Your task to perform on an android device: stop showing notifications on the lock screen Image 0: 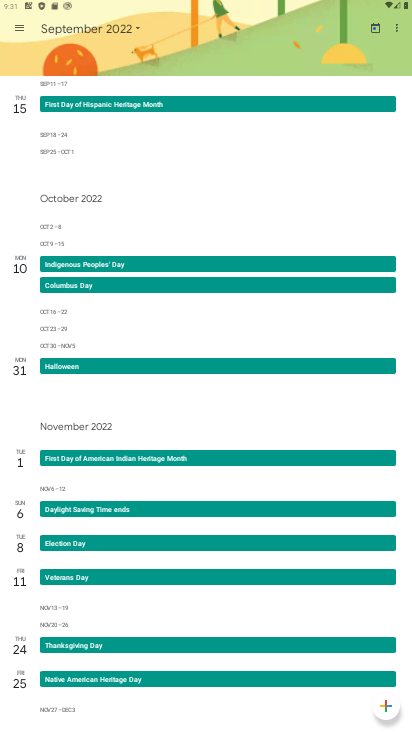
Step 0: press home button
Your task to perform on an android device: stop showing notifications on the lock screen Image 1: 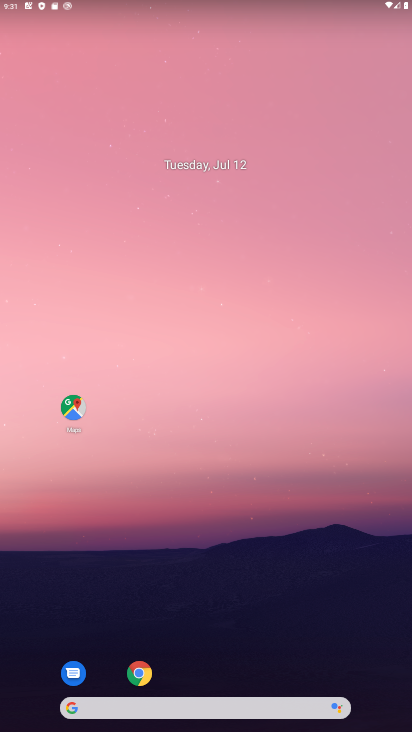
Step 1: drag from (173, 533) to (179, 24)
Your task to perform on an android device: stop showing notifications on the lock screen Image 2: 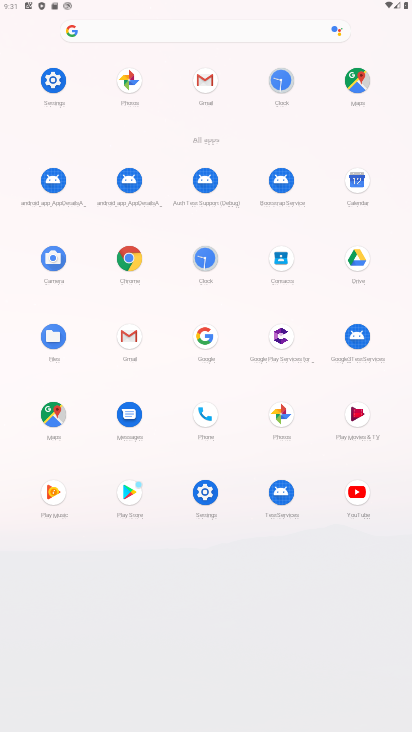
Step 2: click (201, 495)
Your task to perform on an android device: stop showing notifications on the lock screen Image 3: 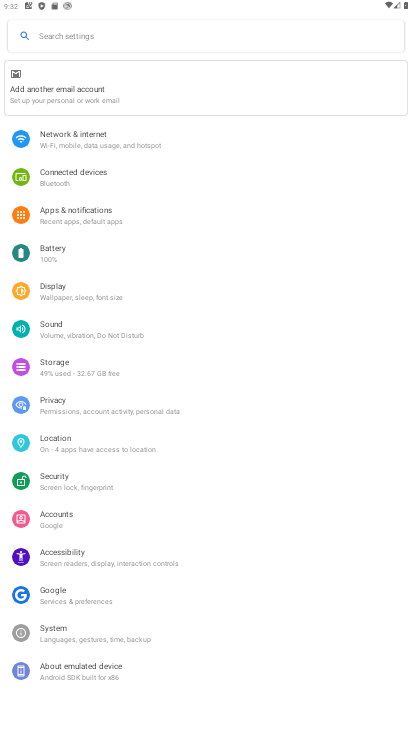
Step 3: click (99, 202)
Your task to perform on an android device: stop showing notifications on the lock screen Image 4: 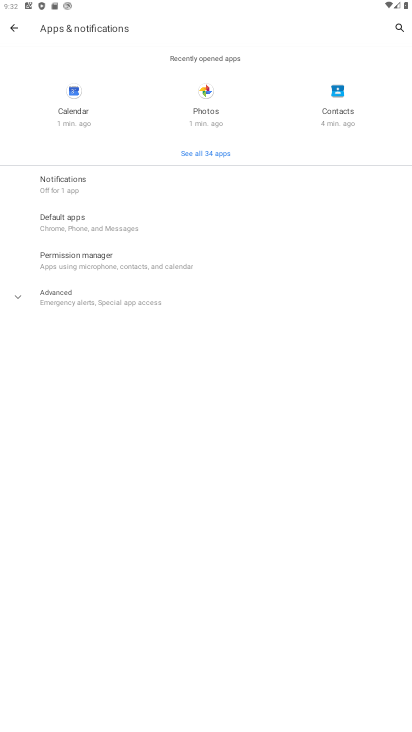
Step 4: click (60, 181)
Your task to perform on an android device: stop showing notifications on the lock screen Image 5: 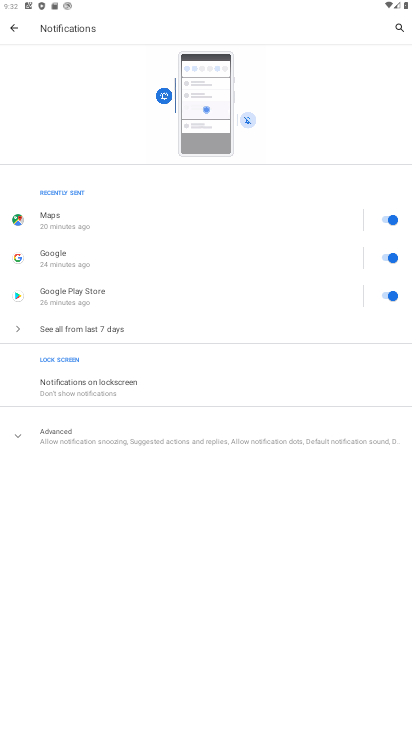
Step 5: click (64, 390)
Your task to perform on an android device: stop showing notifications on the lock screen Image 6: 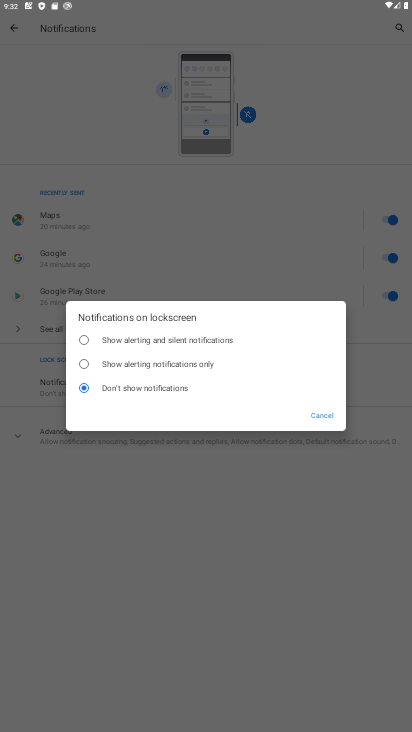
Step 6: task complete